Your task to perform on an android device: Open calendar and show me the second week of next month Image 0: 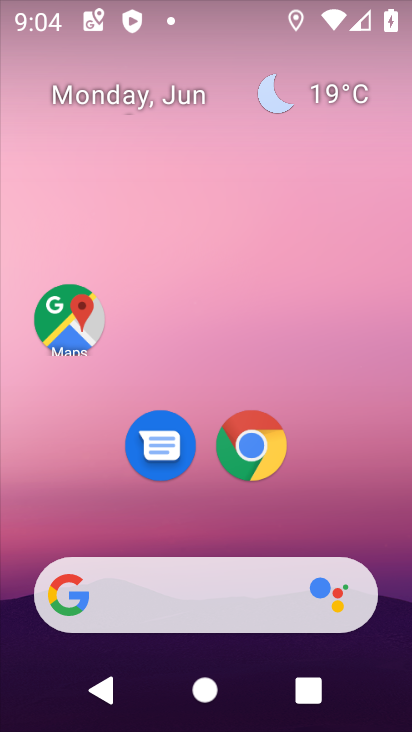
Step 0: press home button
Your task to perform on an android device: Open calendar and show me the second week of next month Image 1: 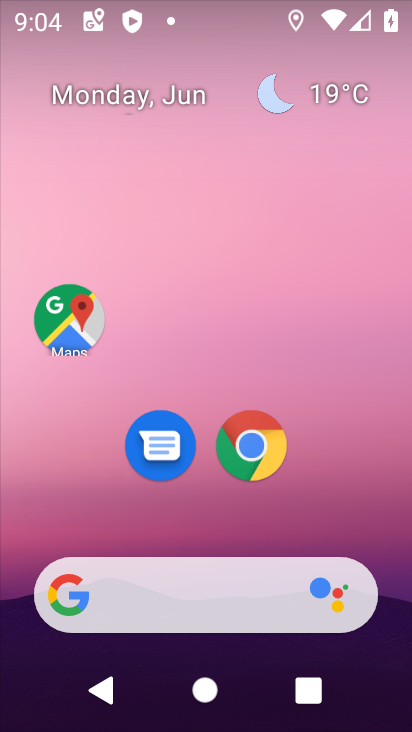
Step 1: press home button
Your task to perform on an android device: Open calendar and show me the second week of next month Image 2: 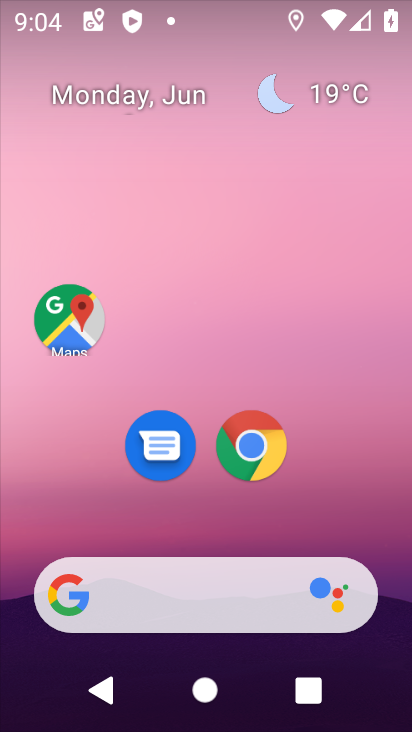
Step 2: drag from (209, 527) to (206, 39)
Your task to perform on an android device: Open calendar and show me the second week of next month Image 3: 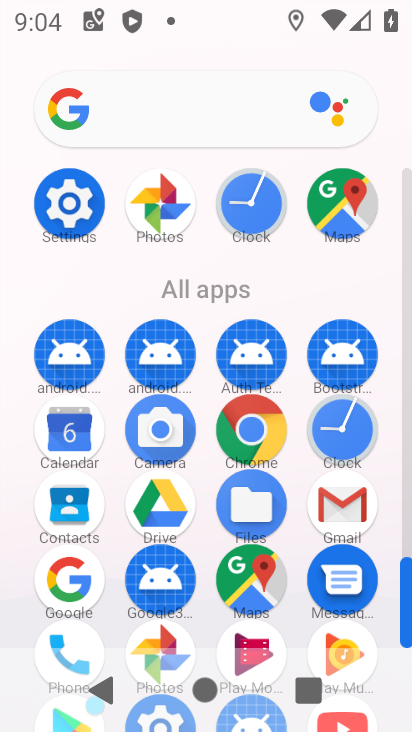
Step 3: click (66, 425)
Your task to perform on an android device: Open calendar and show me the second week of next month Image 4: 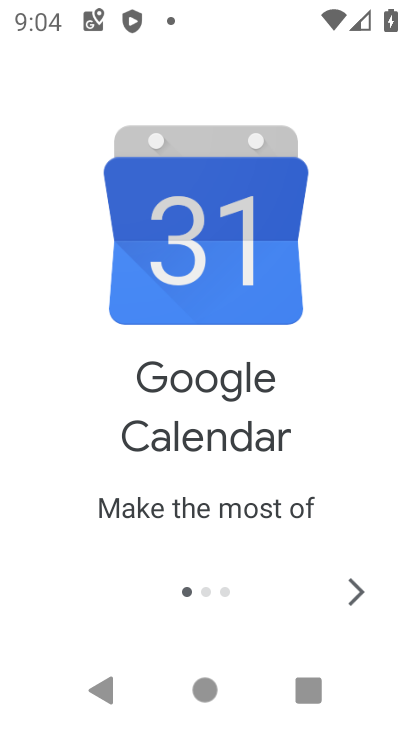
Step 4: click (351, 585)
Your task to perform on an android device: Open calendar and show me the second week of next month Image 5: 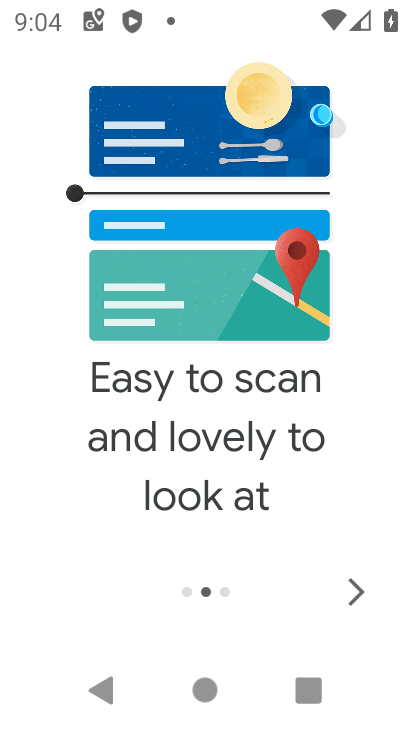
Step 5: click (350, 586)
Your task to perform on an android device: Open calendar and show me the second week of next month Image 6: 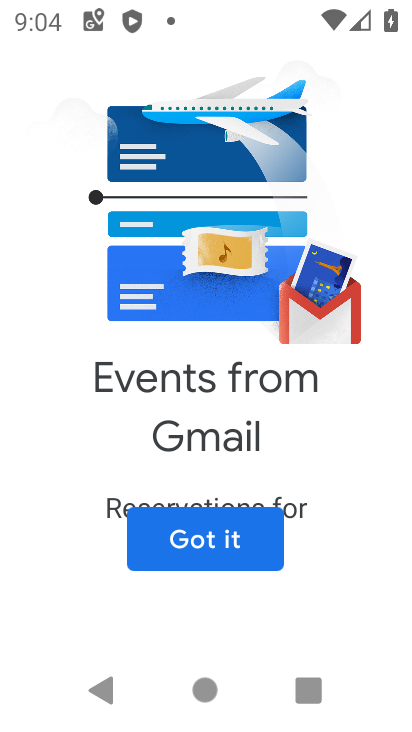
Step 6: click (215, 536)
Your task to perform on an android device: Open calendar and show me the second week of next month Image 7: 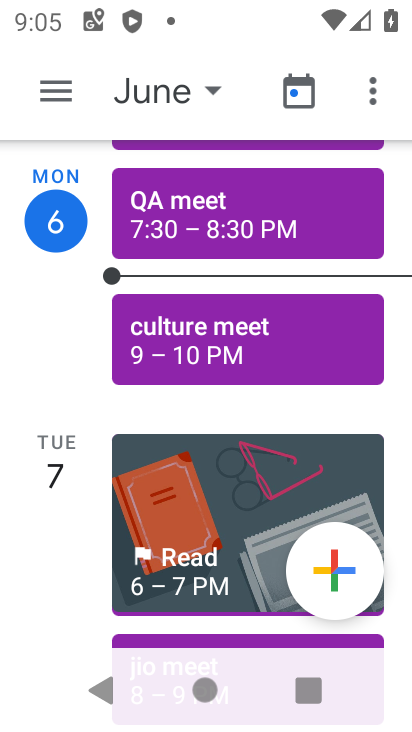
Step 7: click (212, 88)
Your task to perform on an android device: Open calendar and show me the second week of next month Image 8: 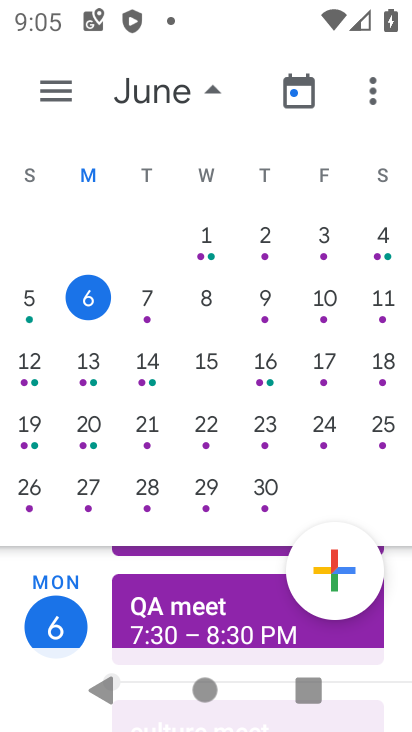
Step 8: drag from (353, 358) to (6, 330)
Your task to perform on an android device: Open calendar and show me the second week of next month Image 9: 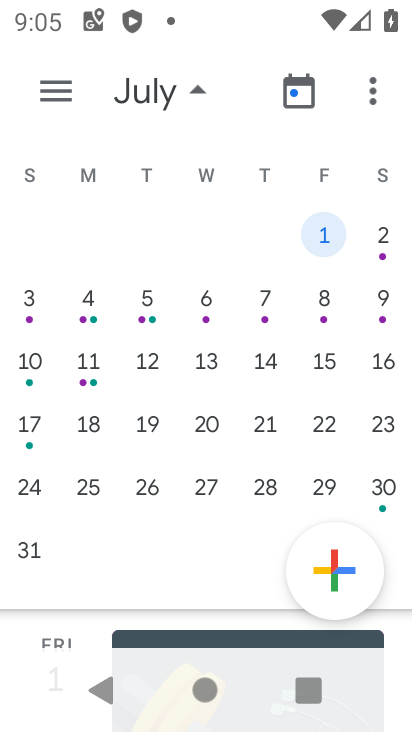
Step 9: click (32, 359)
Your task to perform on an android device: Open calendar and show me the second week of next month Image 10: 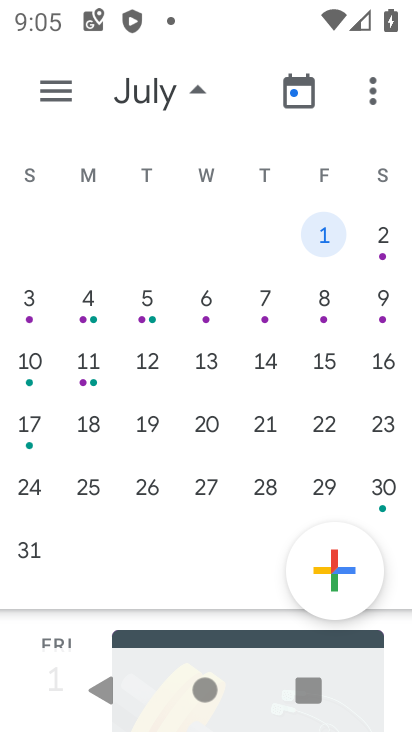
Step 10: click (35, 363)
Your task to perform on an android device: Open calendar and show me the second week of next month Image 11: 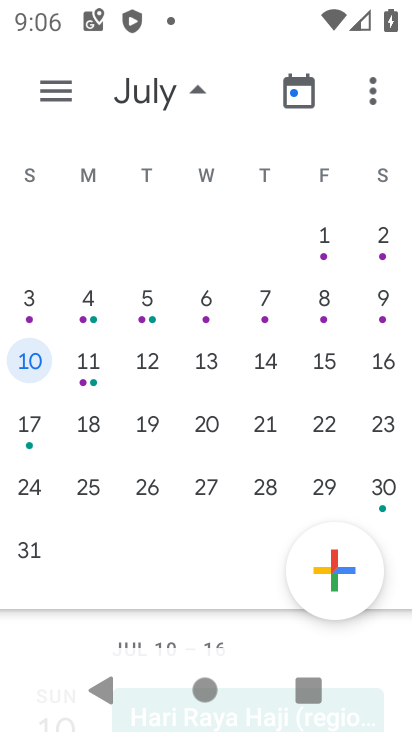
Step 11: click (195, 87)
Your task to perform on an android device: Open calendar and show me the second week of next month Image 12: 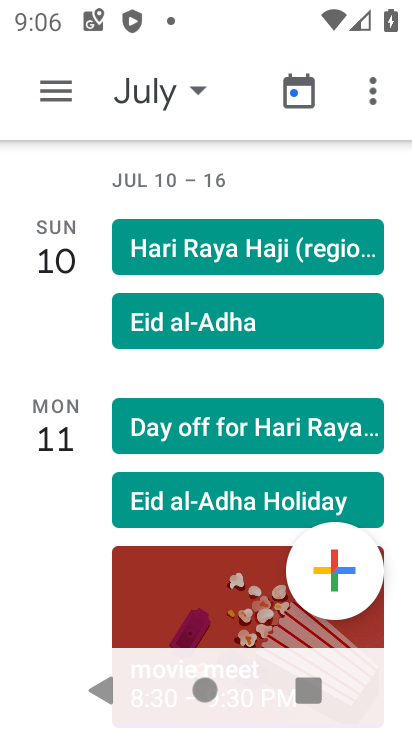
Step 12: task complete